Your task to perform on an android device: change the clock style Image 0: 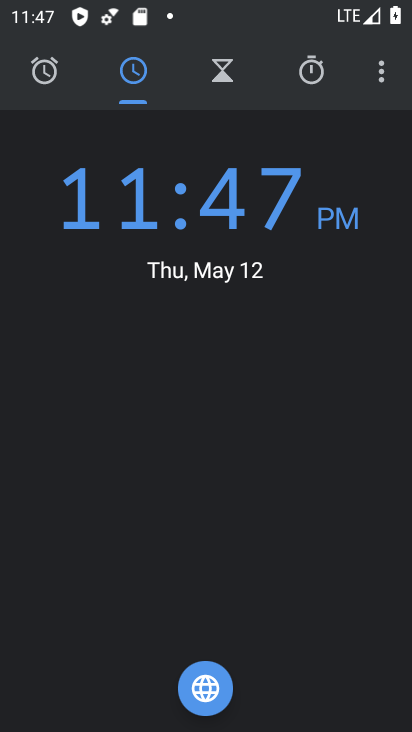
Step 0: click (395, 78)
Your task to perform on an android device: change the clock style Image 1: 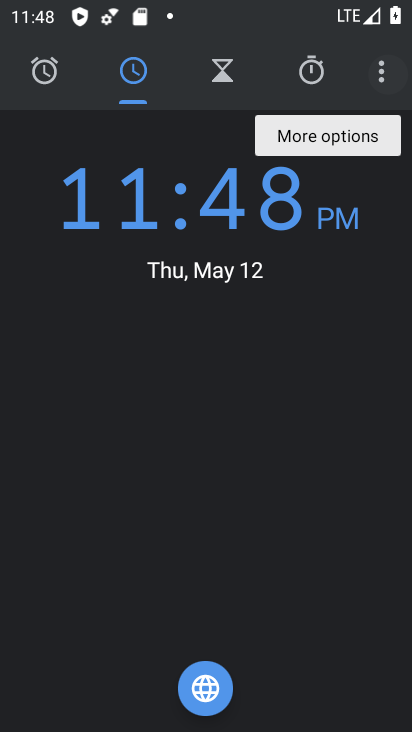
Step 1: click (395, 78)
Your task to perform on an android device: change the clock style Image 2: 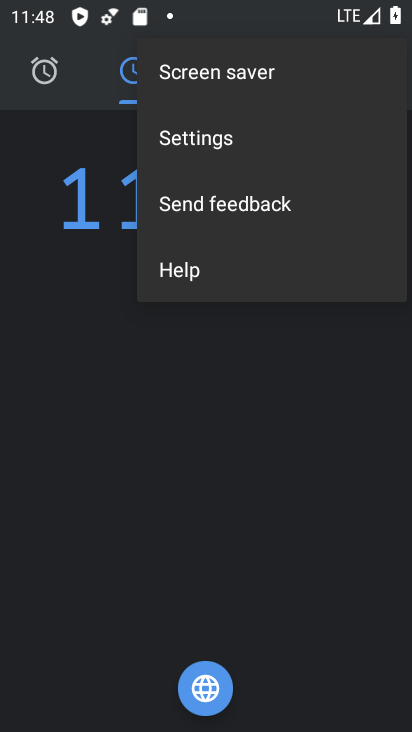
Step 2: click (318, 127)
Your task to perform on an android device: change the clock style Image 3: 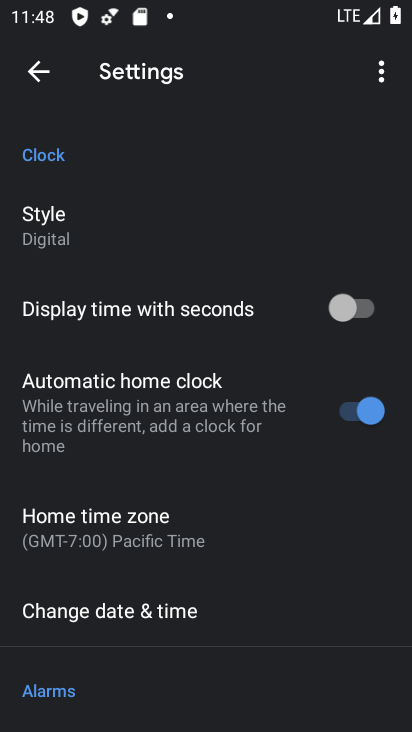
Step 3: click (284, 239)
Your task to perform on an android device: change the clock style Image 4: 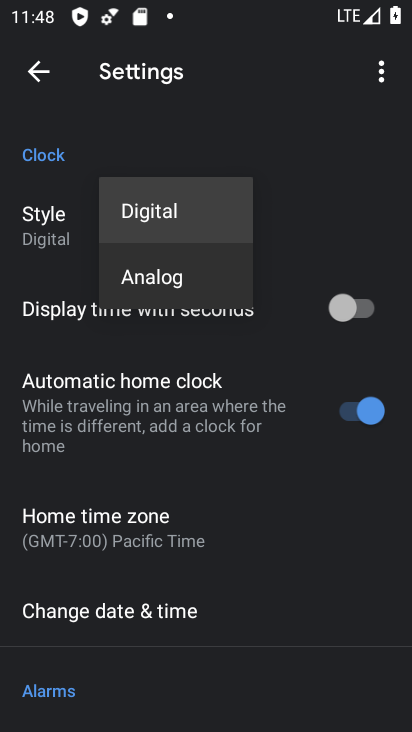
Step 4: click (175, 282)
Your task to perform on an android device: change the clock style Image 5: 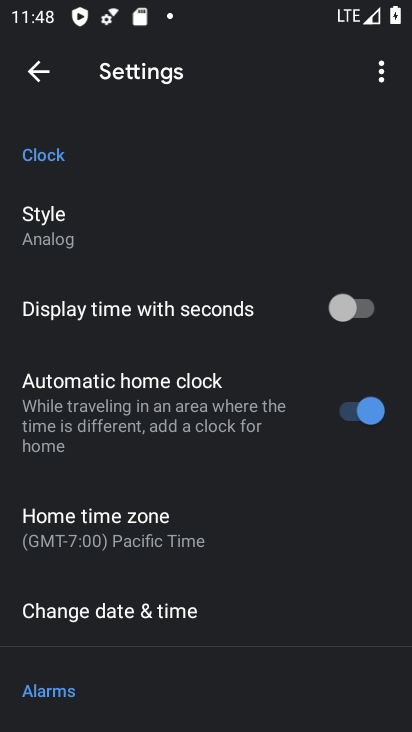
Step 5: task complete